Your task to perform on an android device: Go to Yahoo.com Image 0: 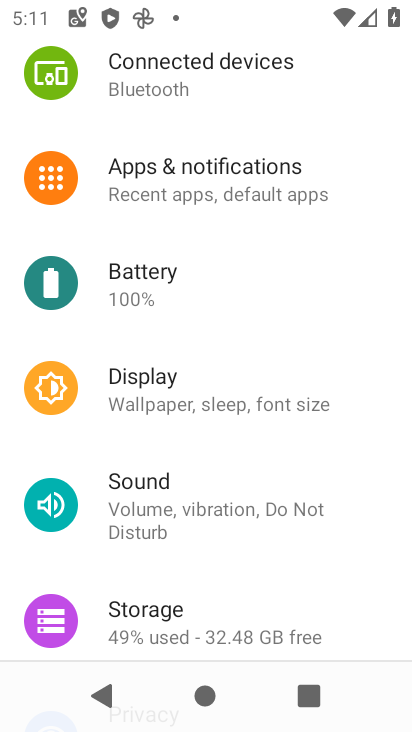
Step 0: press home button
Your task to perform on an android device: Go to Yahoo.com Image 1: 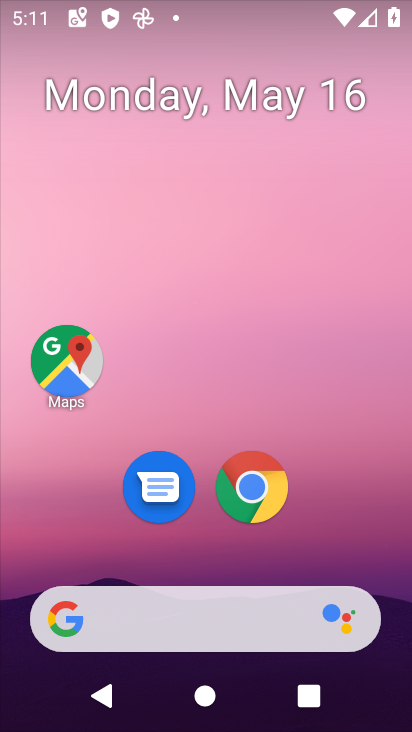
Step 1: click (255, 493)
Your task to perform on an android device: Go to Yahoo.com Image 2: 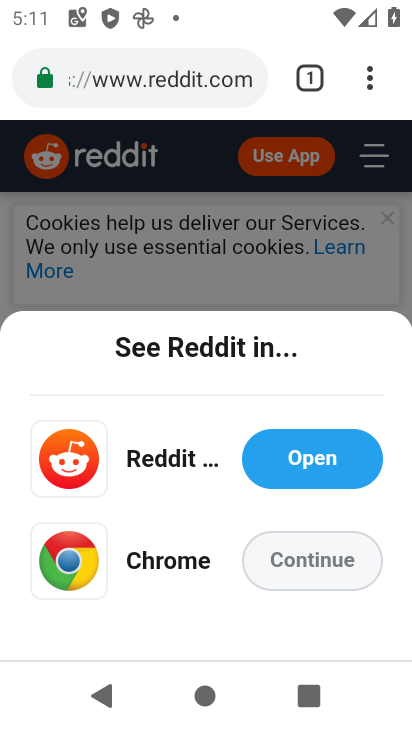
Step 2: click (157, 77)
Your task to perform on an android device: Go to Yahoo.com Image 3: 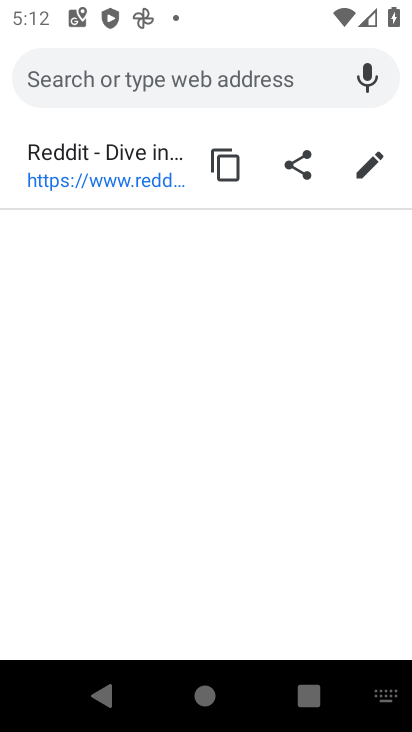
Step 3: type "yahoo.com"
Your task to perform on an android device: Go to Yahoo.com Image 4: 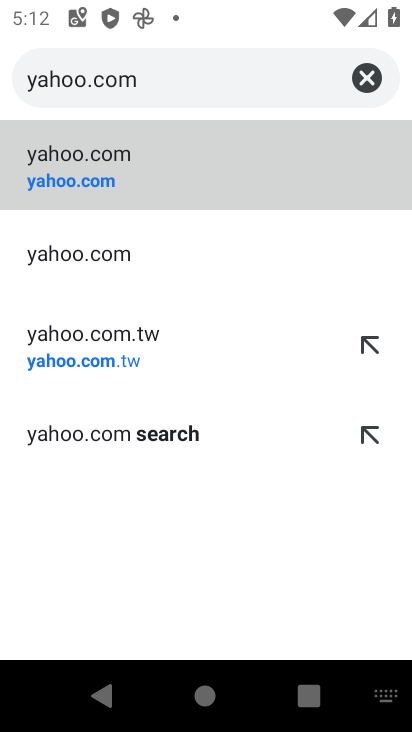
Step 4: click (121, 169)
Your task to perform on an android device: Go to Yahoo.com Image 5: 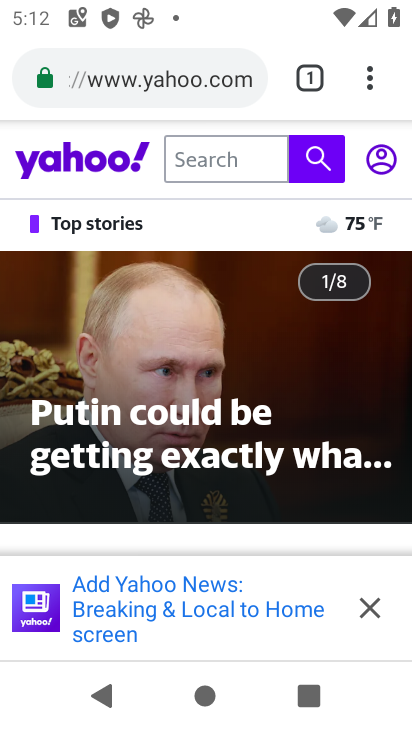
Step 5: task complete